Your task to perform on an android device: What's the weather going to be this weekend? Image 0: 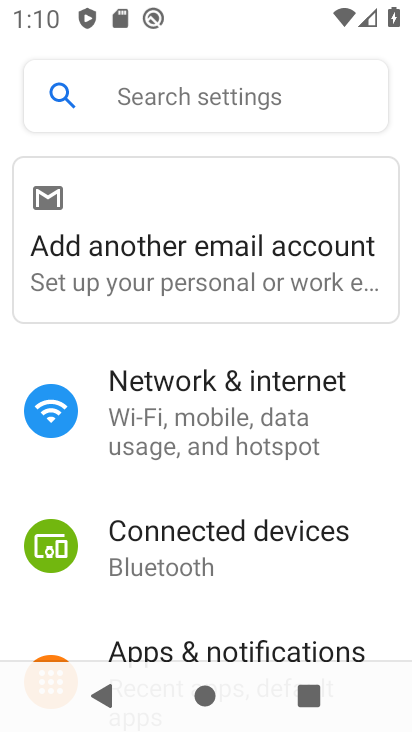
Step 0: press home button
Your task to perform on an android device: What's the weather going to be this weekend? Image 1: 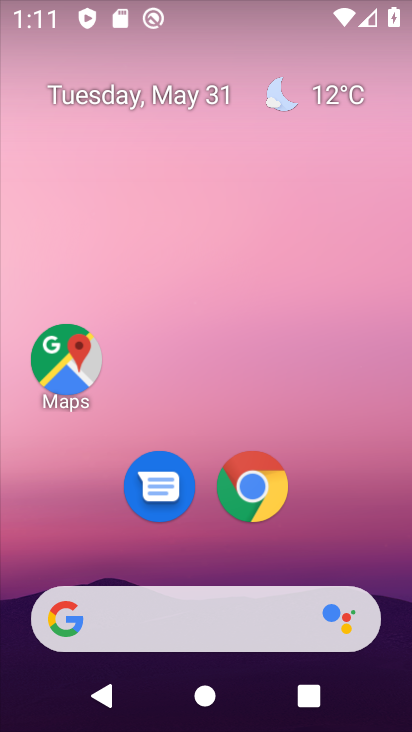
Step 1: drag from (206, 539) to (269, 38)
Your task to perform on an android device: What's the weather going to be this weekend? Image 2: 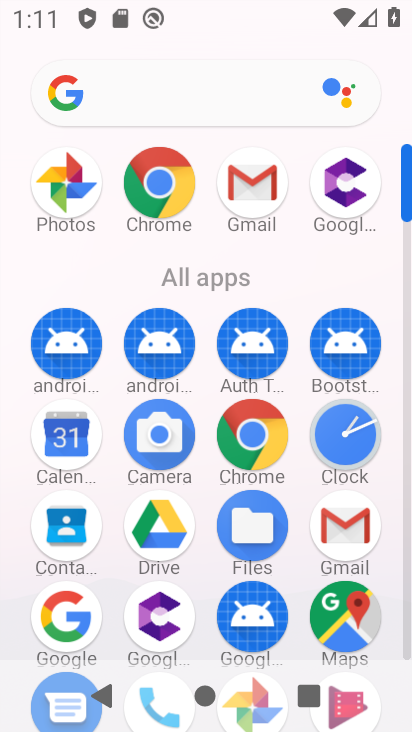
Step 2: click (63, 615)
Your task to perform on an android device: What's the weather going to be this weekend? Image 3: 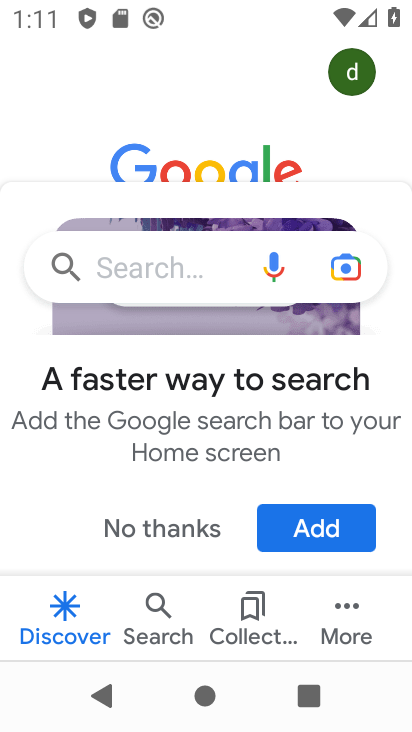
Step 3: press home button
Your task to perform on an android device: What's the weather going to be this weekend? Image 4: 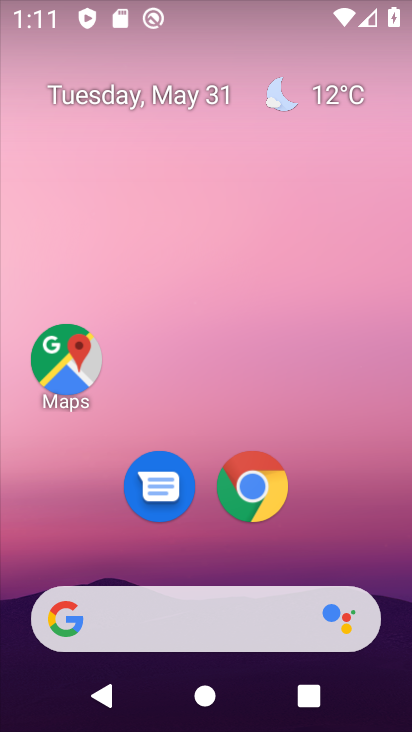
Step 4: click (297, 22)
Your task to perform on an android device: What's the weather going to be this weekend? Image 5: 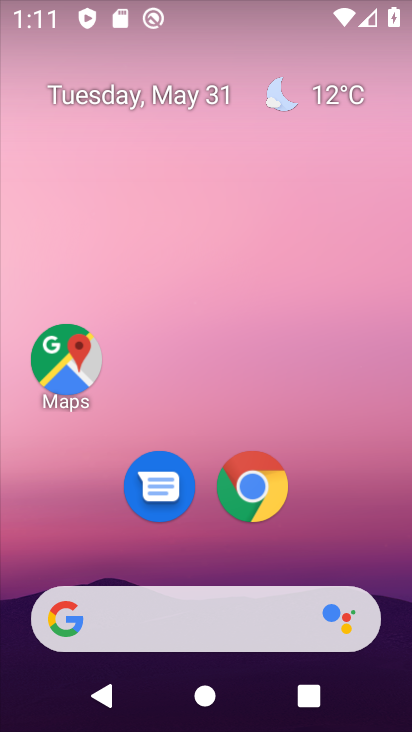
Step 5: drag from (277, 547) to (333, 37)
Your task to perform on an android device: What's the weather going to be this weekend? Image 6: 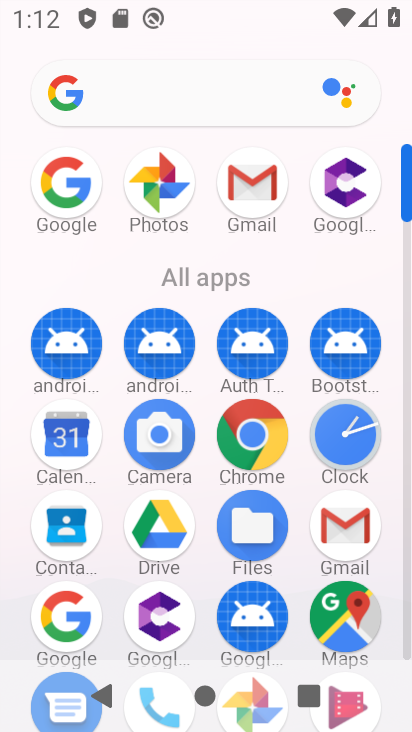
Step 6: click (76, 626)
Your task to perform on an android device: What's the weather going to be this weekend? Image 7: 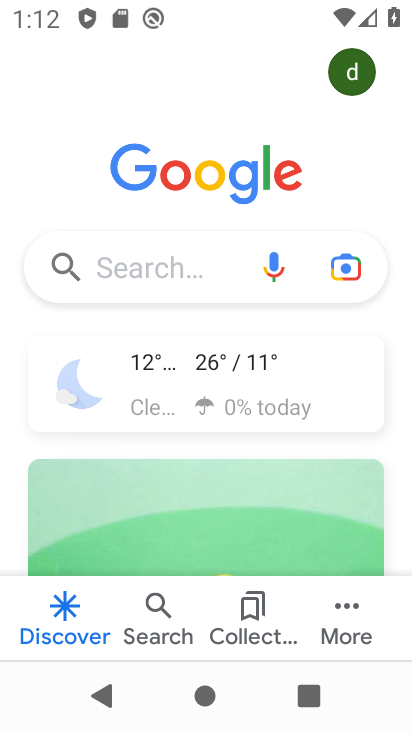
Step 7: click (120, 276)
Your task to perform on an android device: What's the weather going to be this weekend? Image 8: 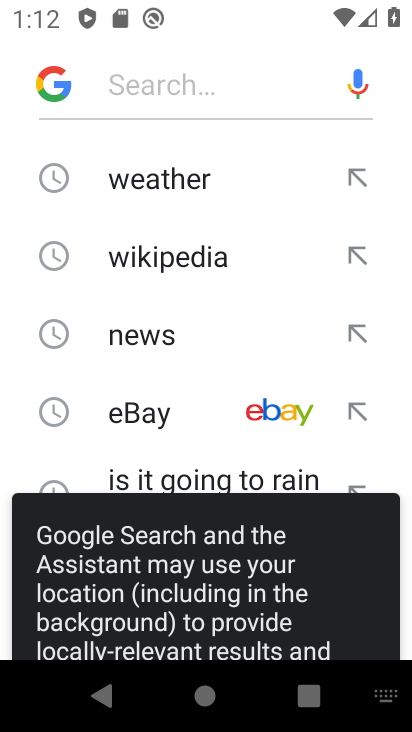
Step 8: click (196, 187)
Your task to perform on an android device: What's the weather going to be this weekend? Image 9: 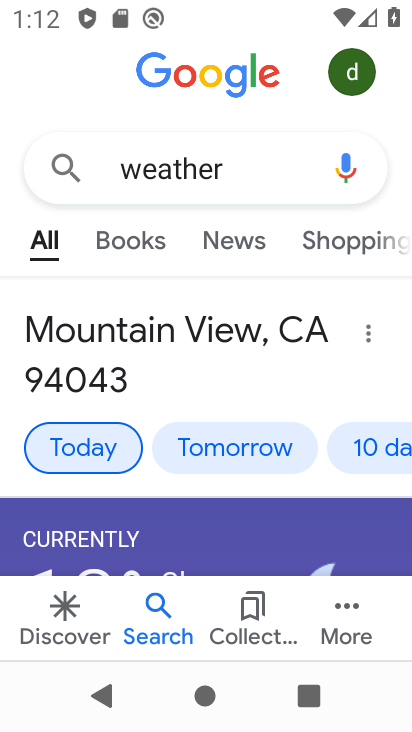
Step 9: click (383, 463)
Your task to perform on an android device: What's the weather going to be this weekend? Image 10: 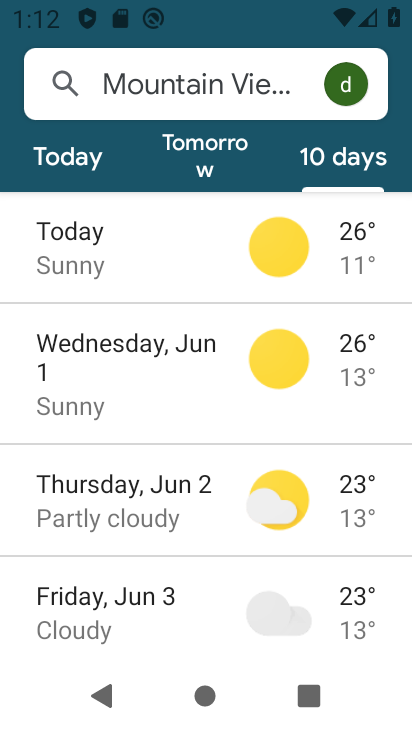
Step 10: task complete